Your task to perform on an android device: turn off translation in the chrome app Image 0: 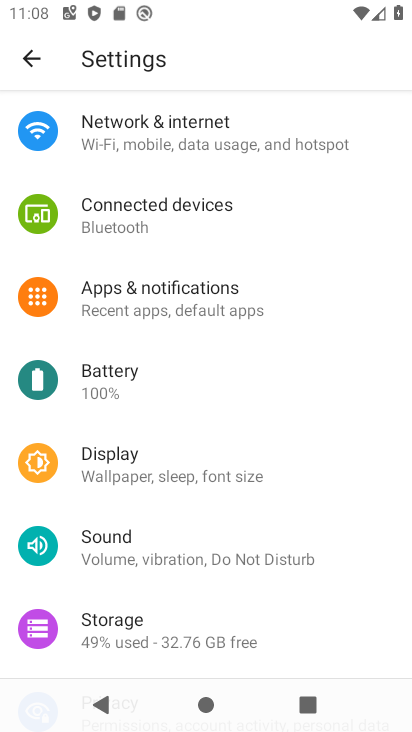
Step 0: press home button
Your task to perform on an android device: turn off translation in the chrome app Image 1: 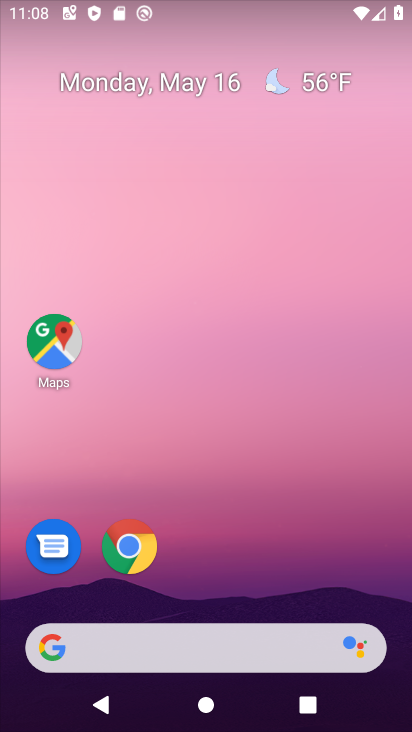
Step 1: click (144, 537)
Your task to perform on an android device: turn off translation in the chrome app Image 2: 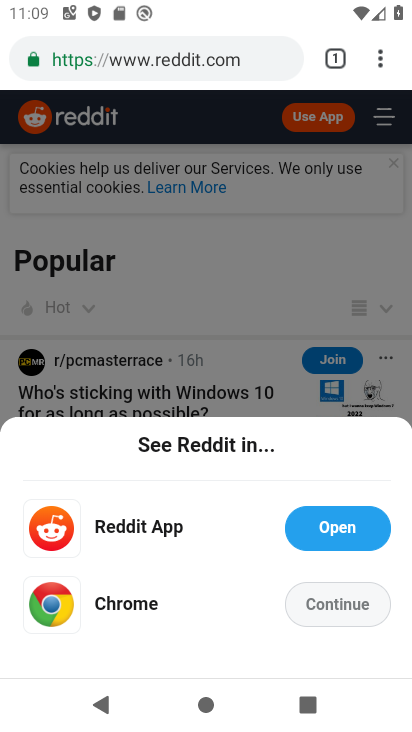
Step 2: drag from (388, 70) to (162, 575)
Your task to perform on an android device: turn off translation in the chrome app Image 3: 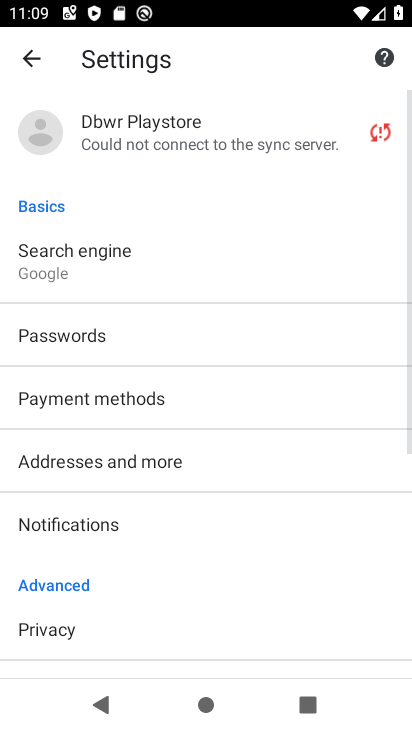
Step 3: drag from (164, 564) to (230, 197)
Your task to perform on an android device: turn off translation in the chrome app Image 4: 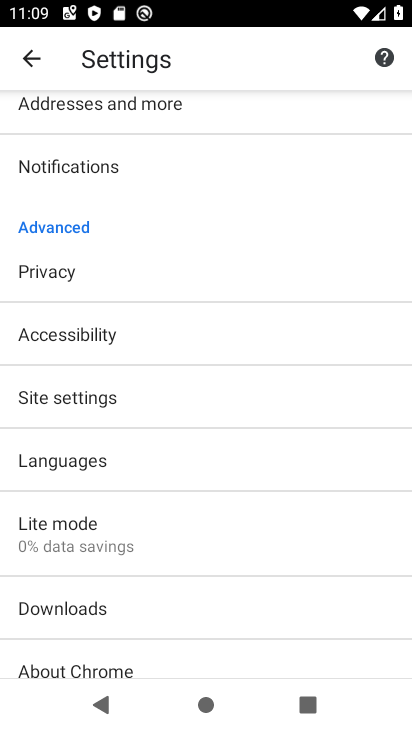
Step 4: click (99, 459)
Your task to perform on an android device: turn off translation in the chrome app Image 5: 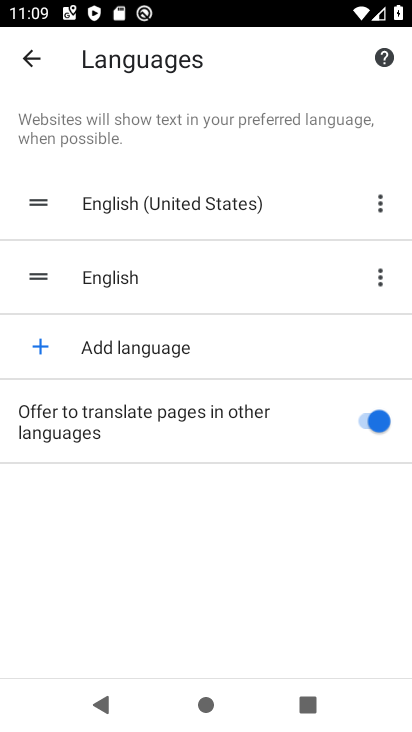
Step 5: click (370, 422)
Your task to perform on an android device: turn off translation in the chrome app Image 6: 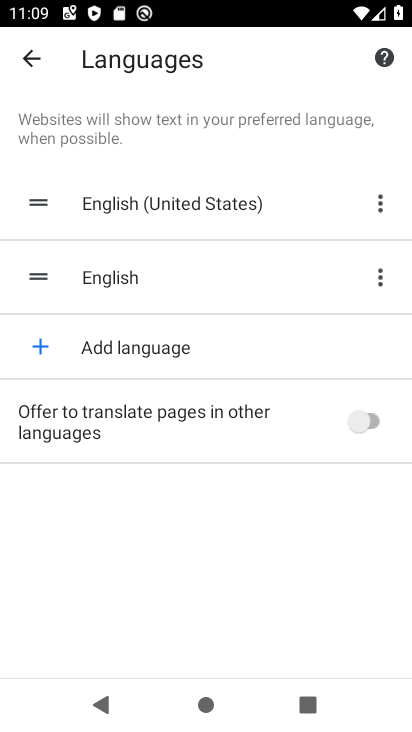
Step 6: task complete